Your task to perform on an android device: Search for the new Apple Watch on Best Buy Image 0: 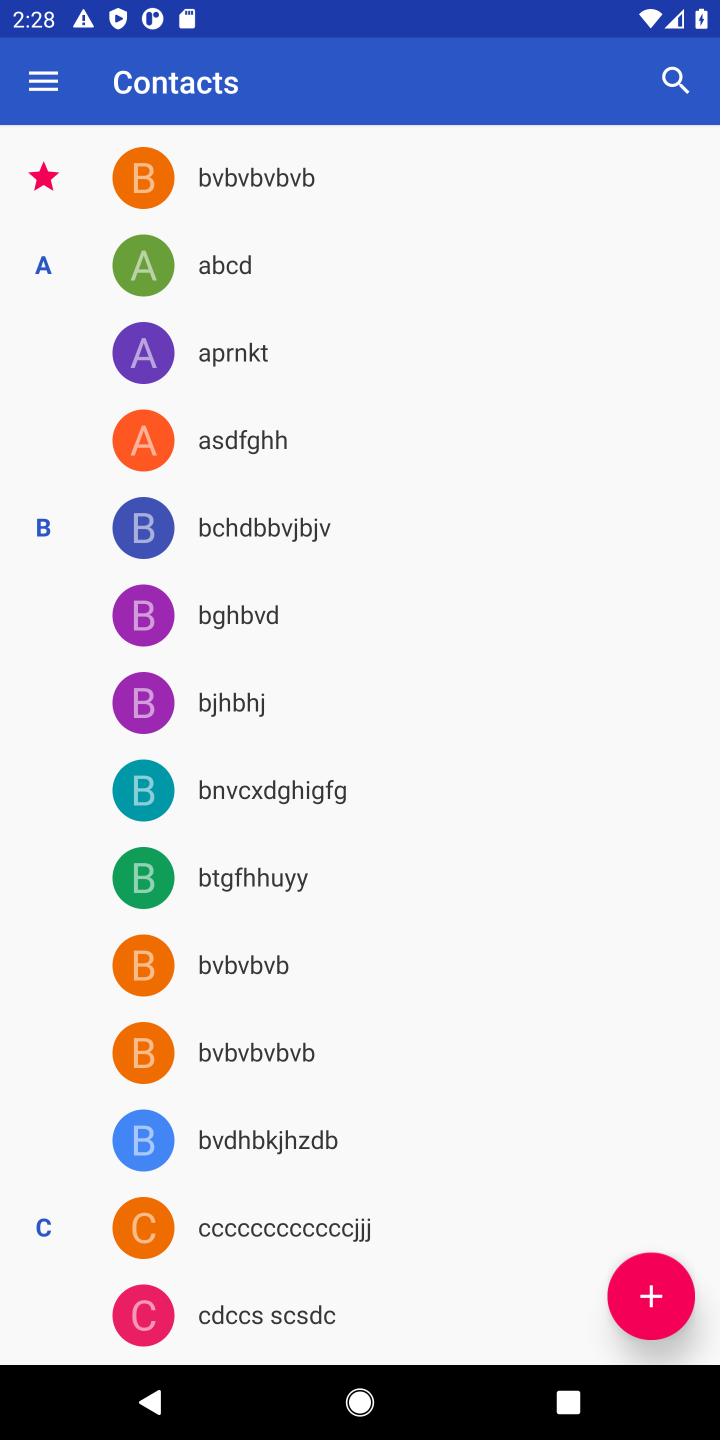
Step 0: press home button
Your task to perform on an android device: Search for the new Apple Watch on Best Buy Image 1: 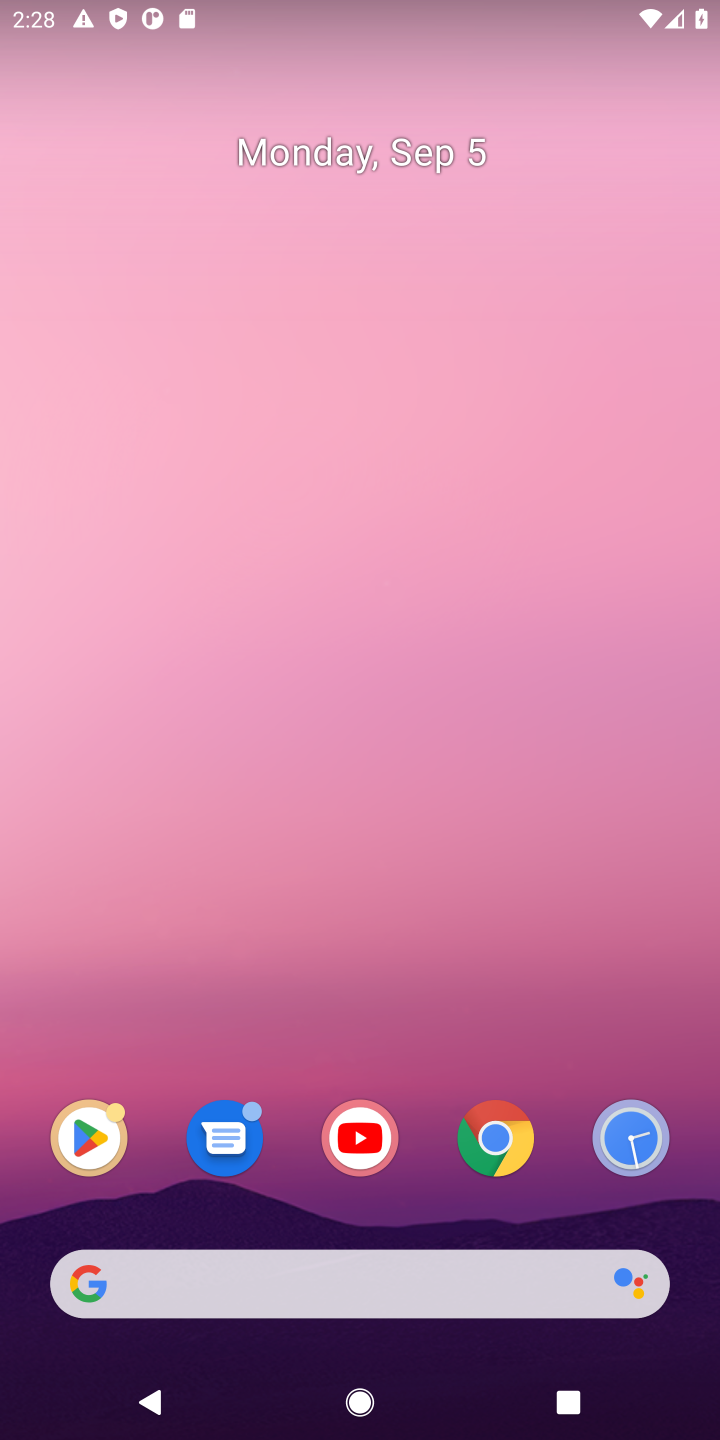
Step 1: click (494, 1138)
Your task to perform on an android device: Search for the new Apple Watch on Best Buy Image 2: 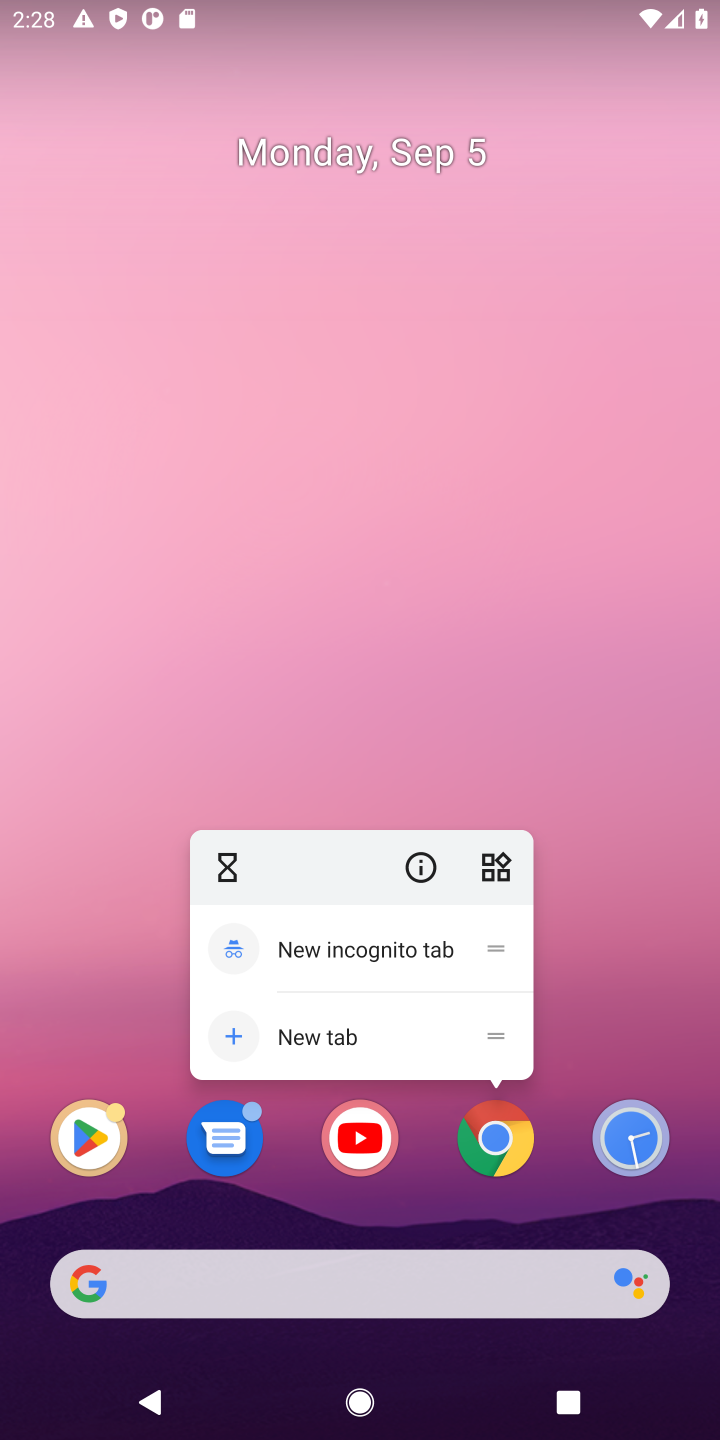
Step 2: click (494, 1138)
Your task to perform on an android device: Search for the new Apple Watch on Best Buy Image 3: 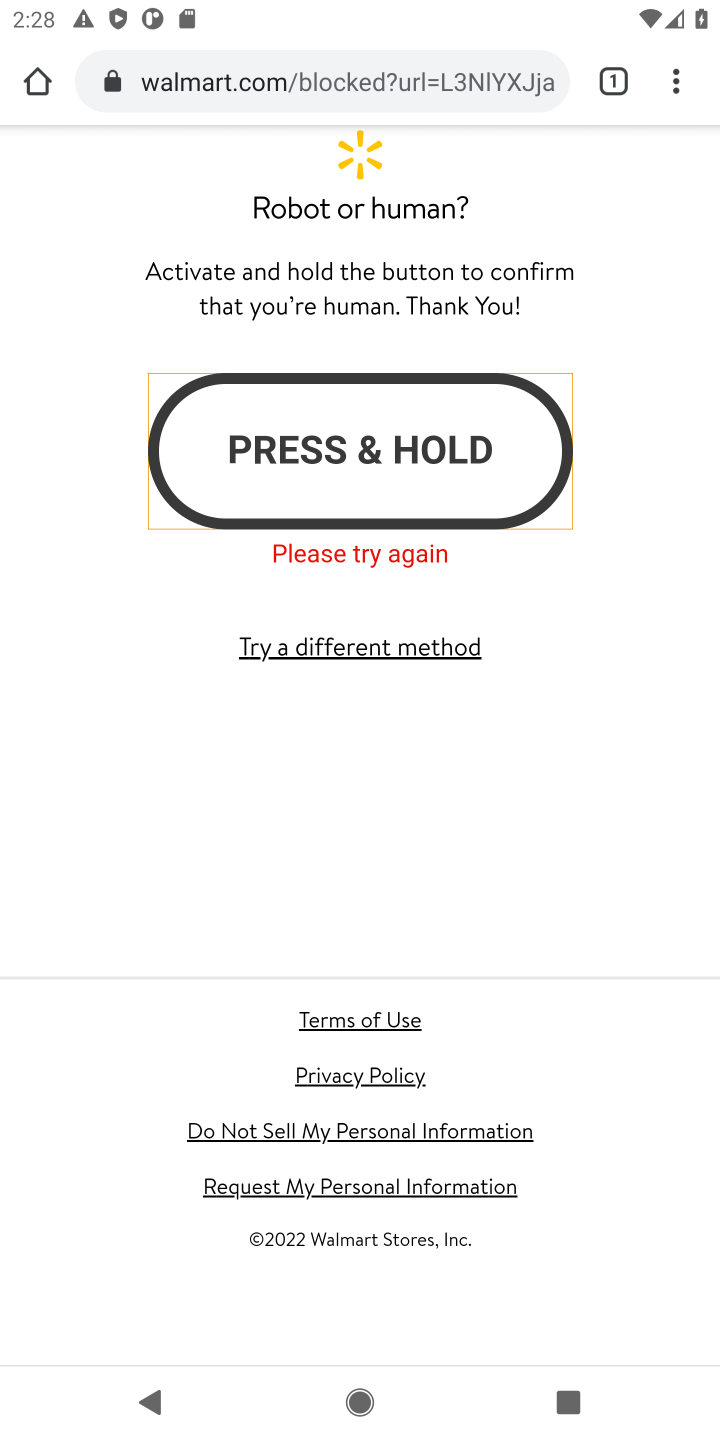
Step 3: click (457, 82)
Your task to perform on an android device: Search for the new Apple Watch on Best Buy Image 4: 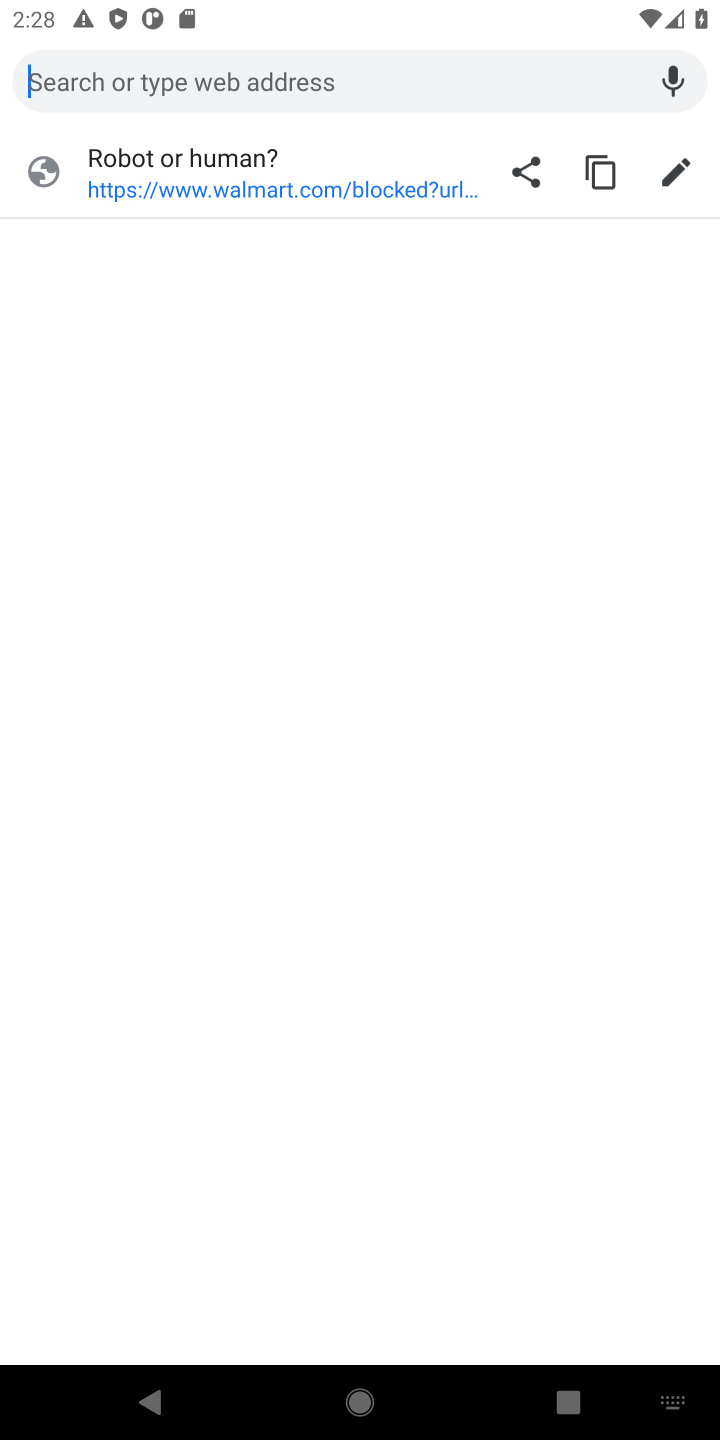
Step 4: type "Best Buy"
Your task to perform on an android device: Search for the new Apple Watch on Best Buy Image 5: 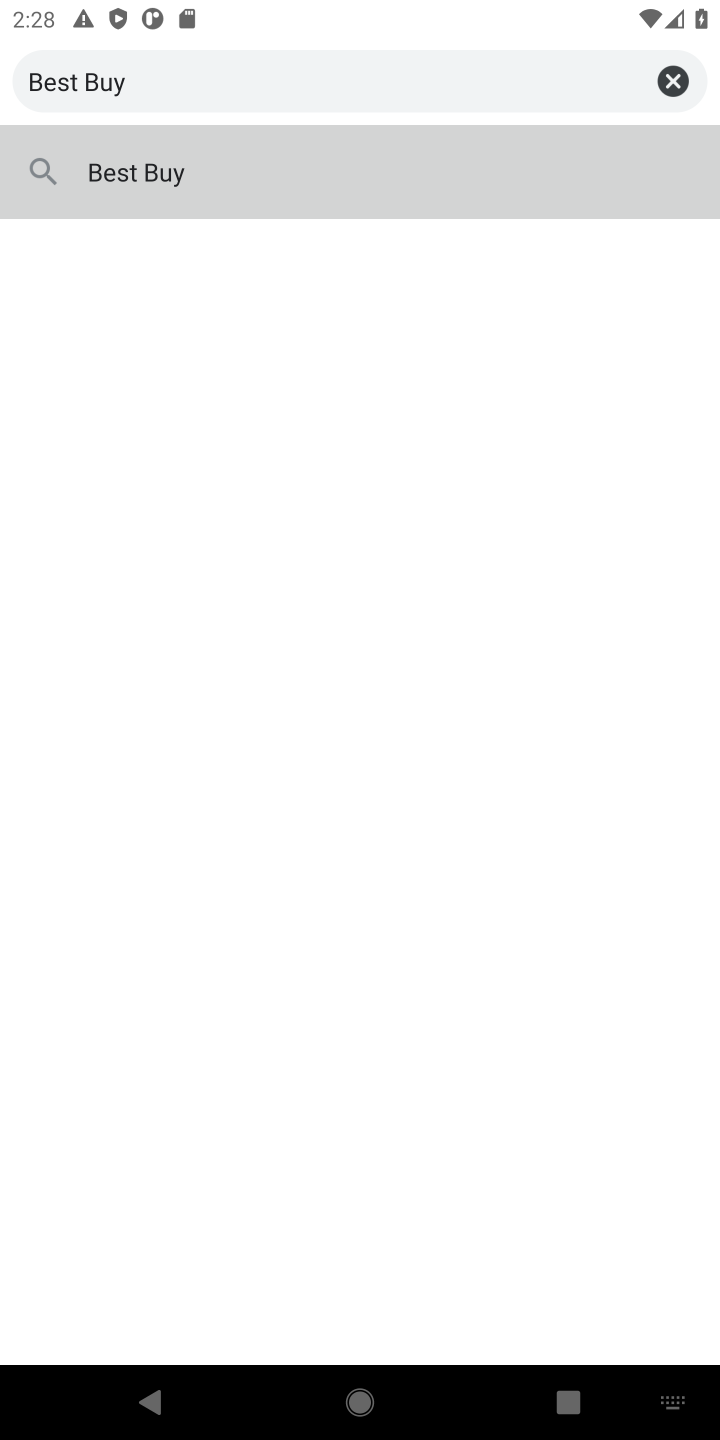
Step 5: click (319, 178)
Your task to perform on an android device: Search for the new Apple Watch on Best Buy Image 6: 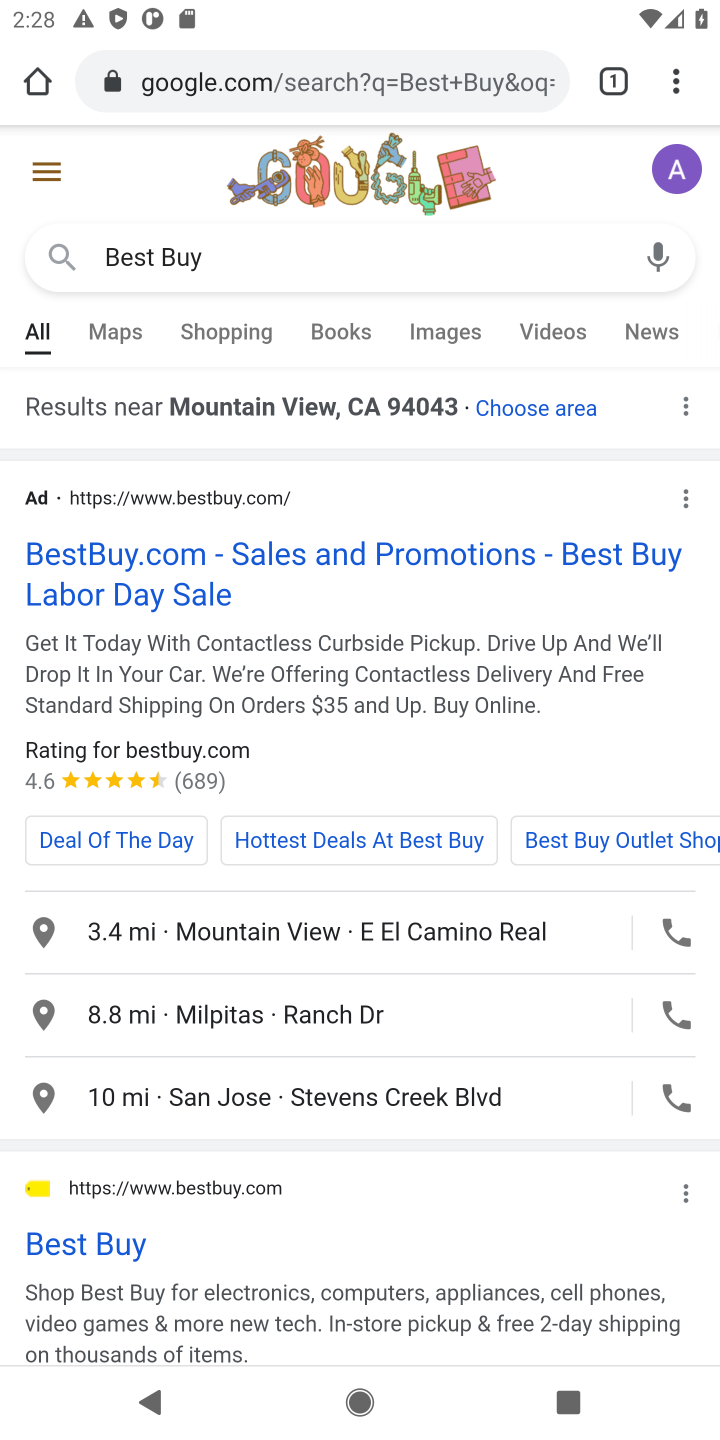
Step 6: click (171, 1262)
Your task to perform on an android device: Search for the new Apple Watch on Best Buy Image 7: 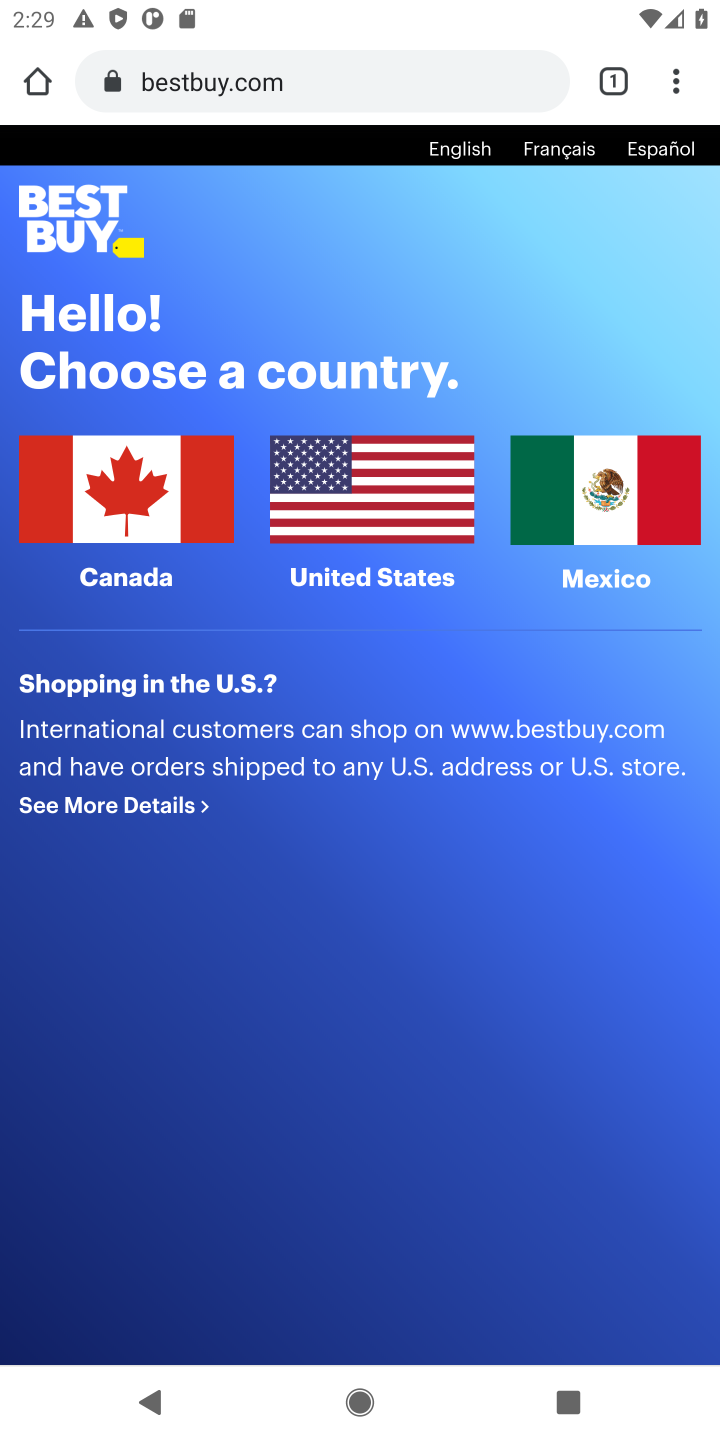
Step 7: click (411, 519)
Your task to perform on an android device: Search for the new Apple Watch on Best Buy Image 8: 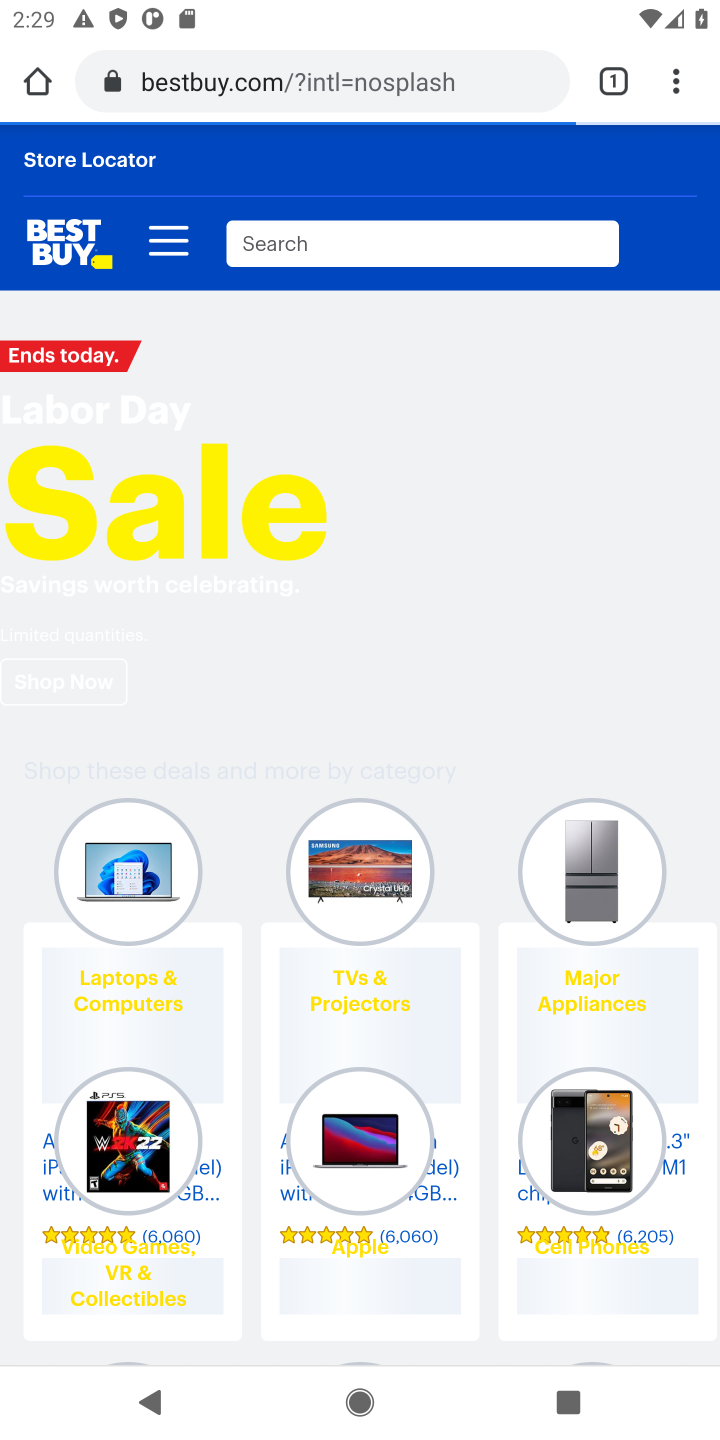
Step 8: click (446, 247)
Your task to perform on an android device: Search for the new Apple Watch on Best Buy Image 9: 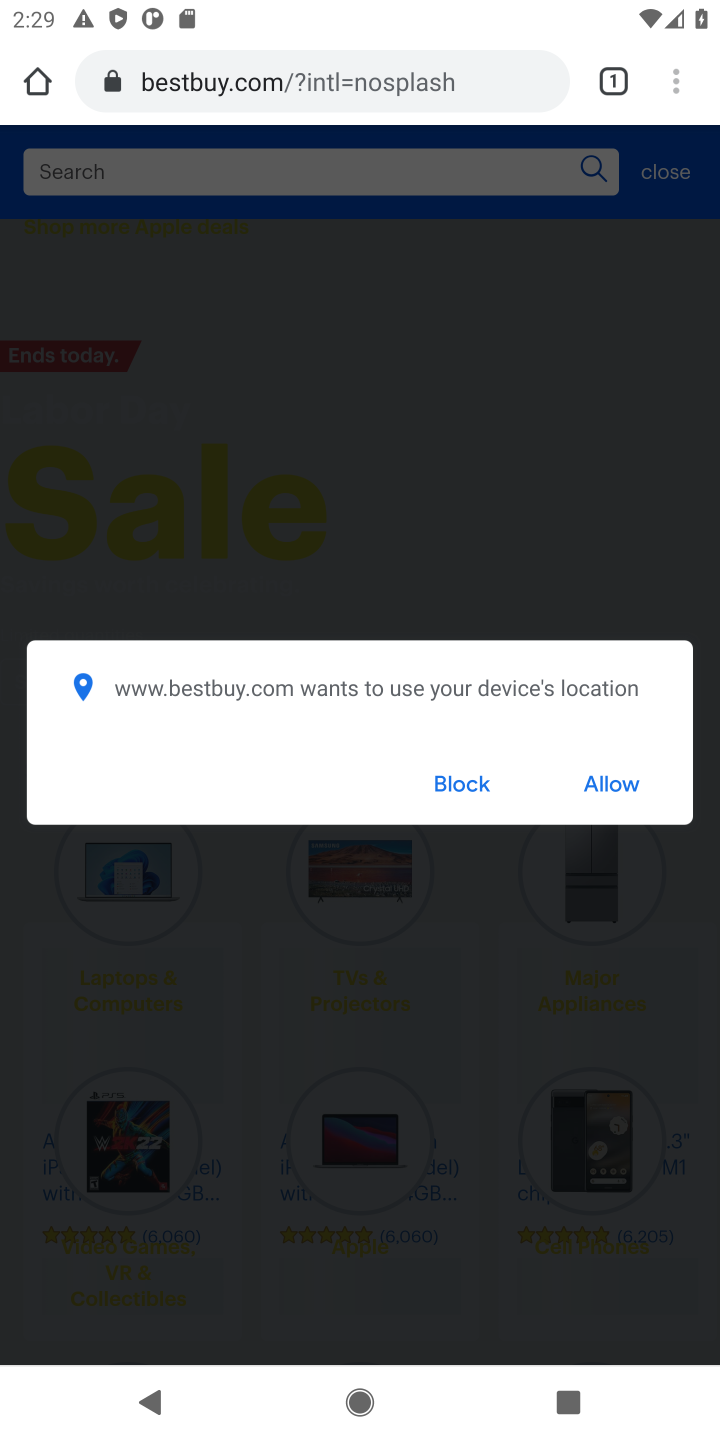
Step 9: click (621, 798)
Your task to perform on an android device: Search for the new Apple Watch on Best Buy Image 10: 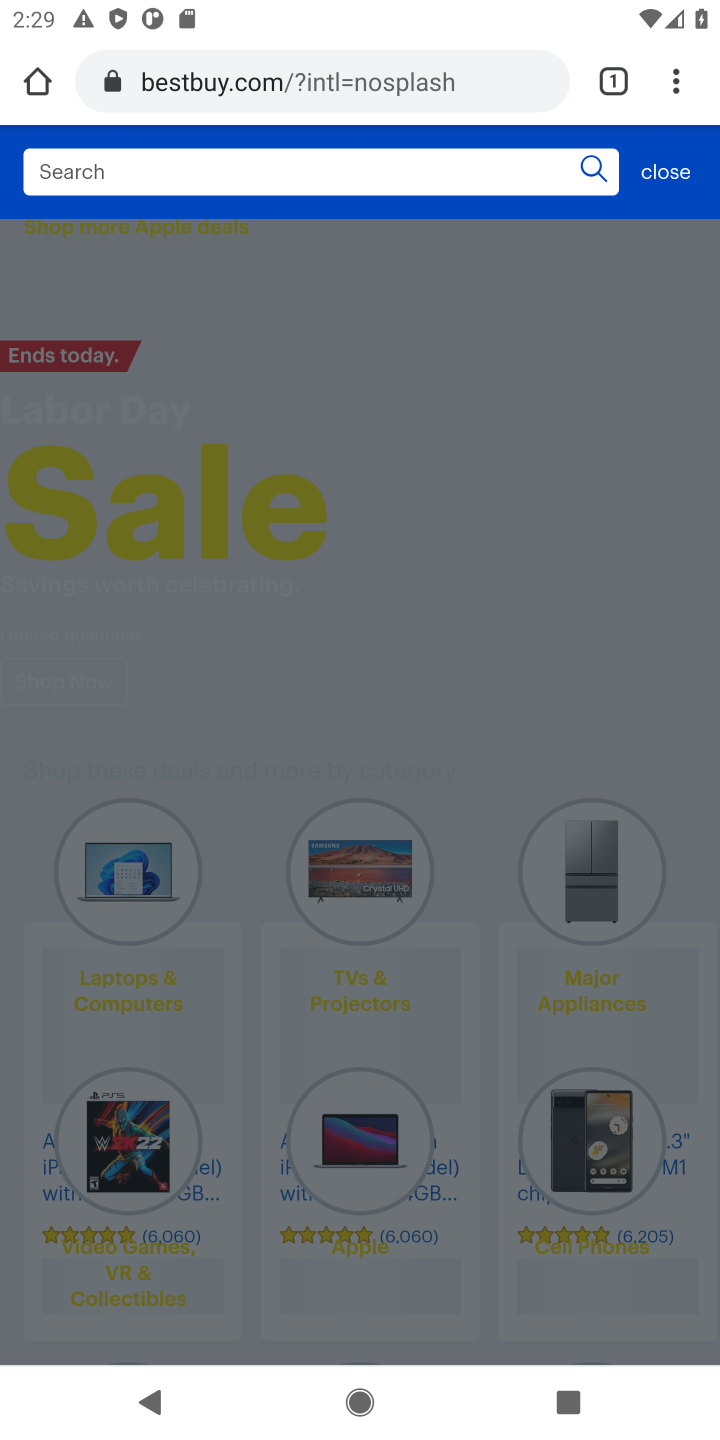
Step 10: click (311, 170)
Your task to perform on an android device: Search for the new Apple Watch on Best Buy Image 11: 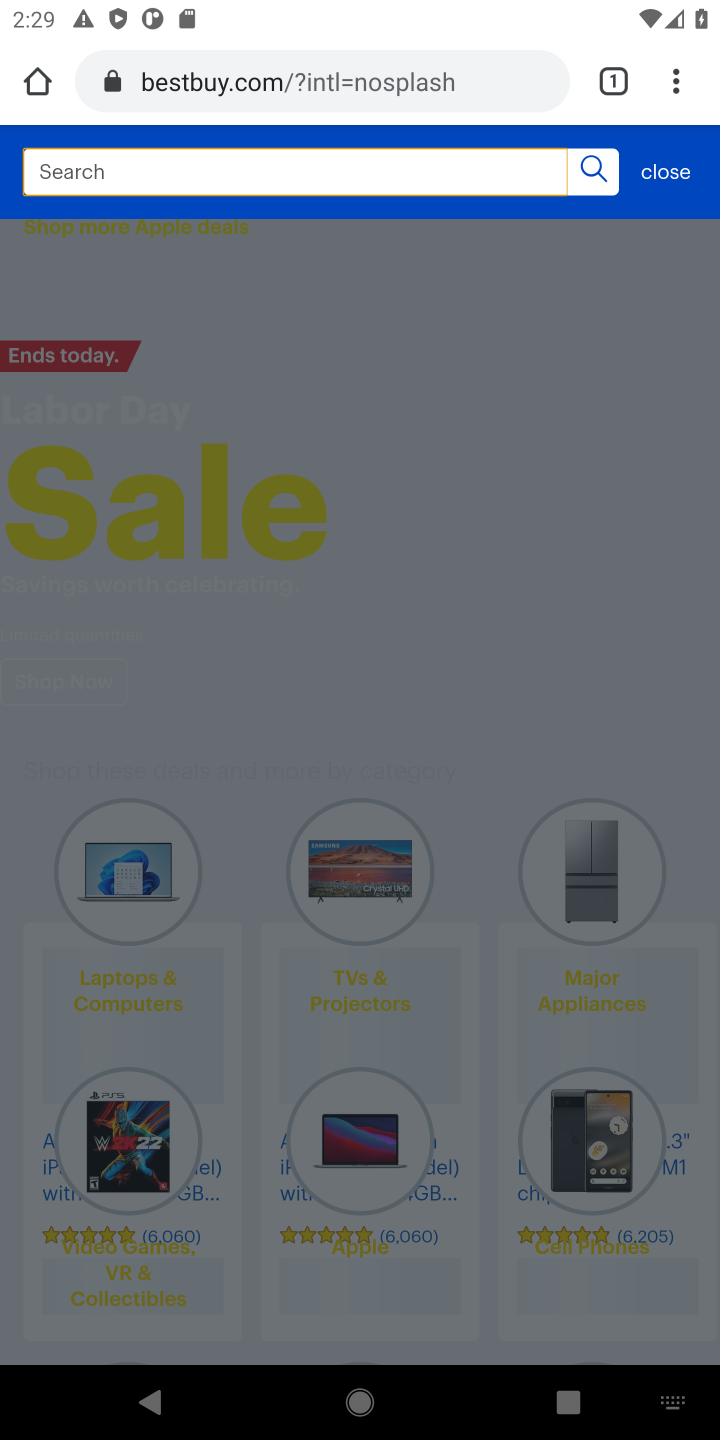
Step 11: type "new Apple Watch"
Your task to perform on an android device: Search for the new Apple Watch on Best Buy Image 12: 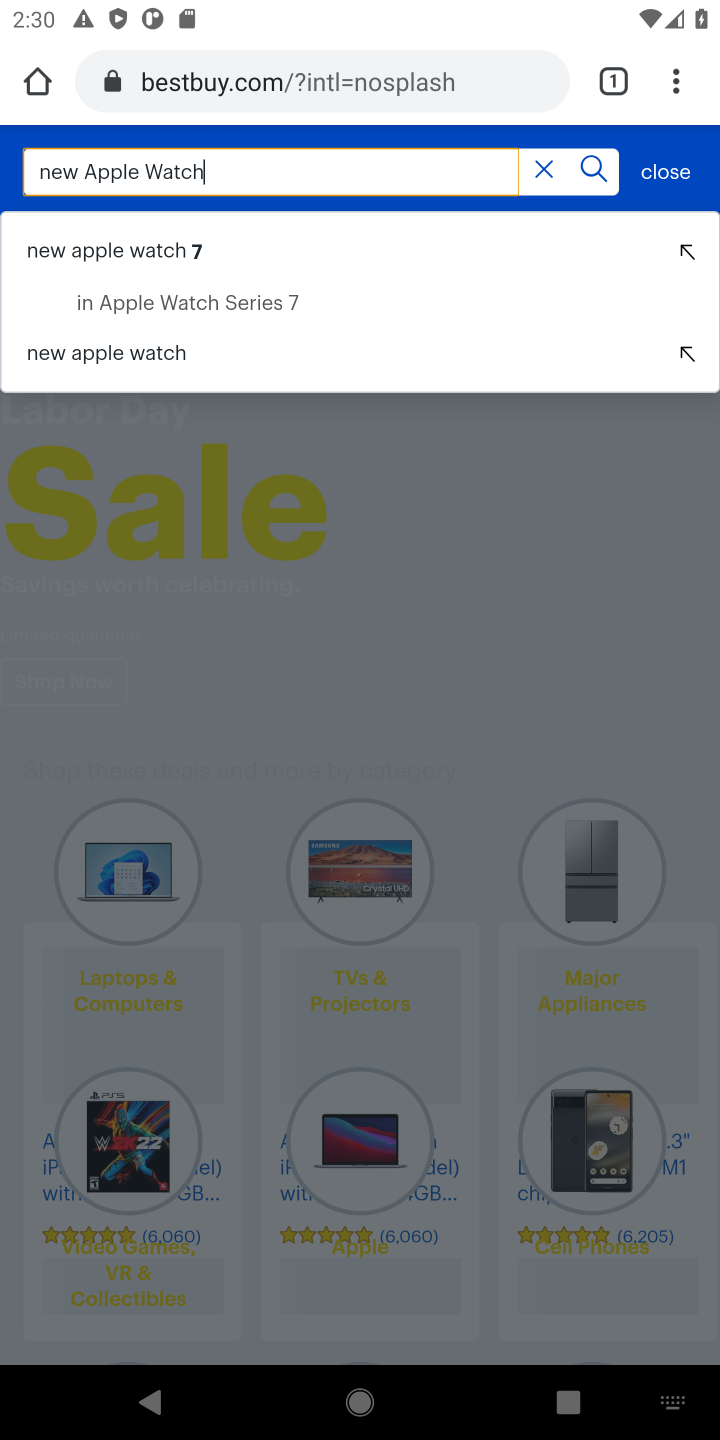
Step 12: click (586, 171)
Your task to perform on an android device: Search for the new Apple Watch on Best Buy Image 13: 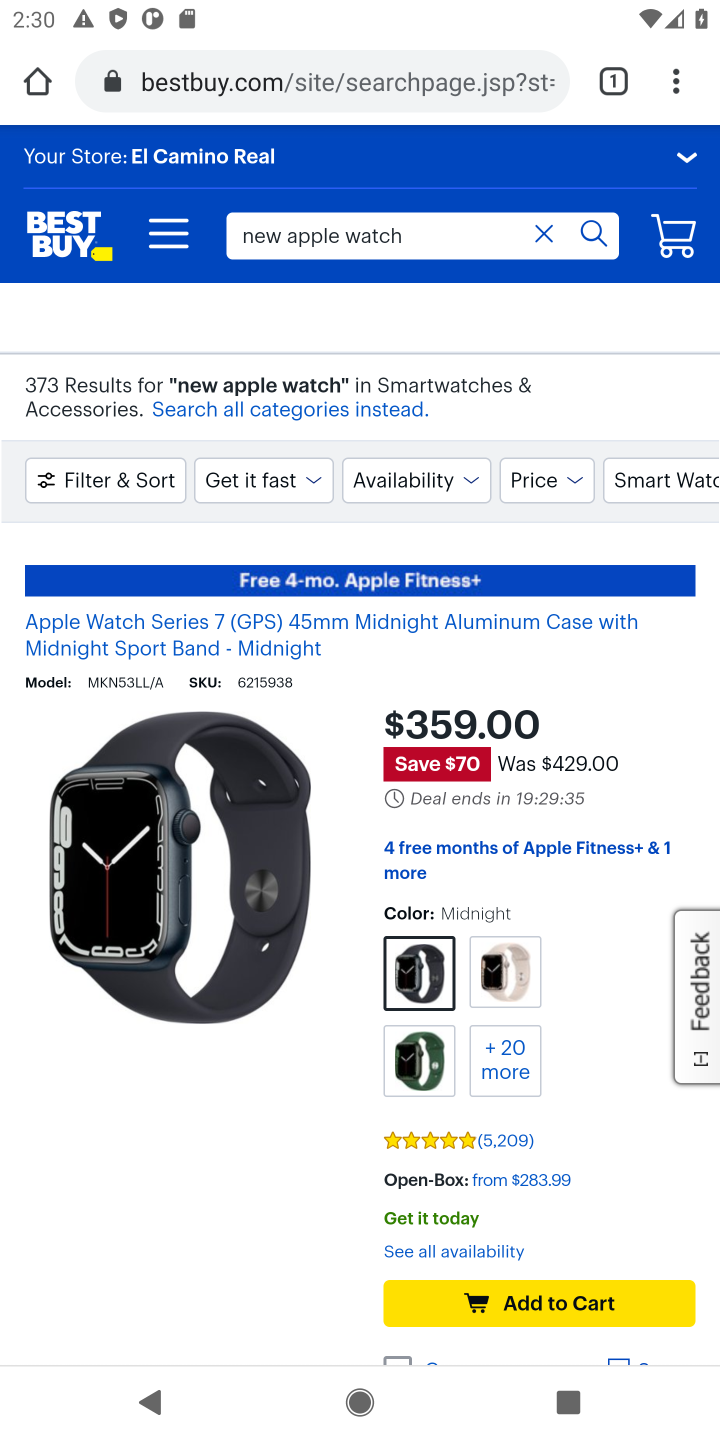
Step 13: task complete